Your task to perform on an android device: turn on location history Image 0: 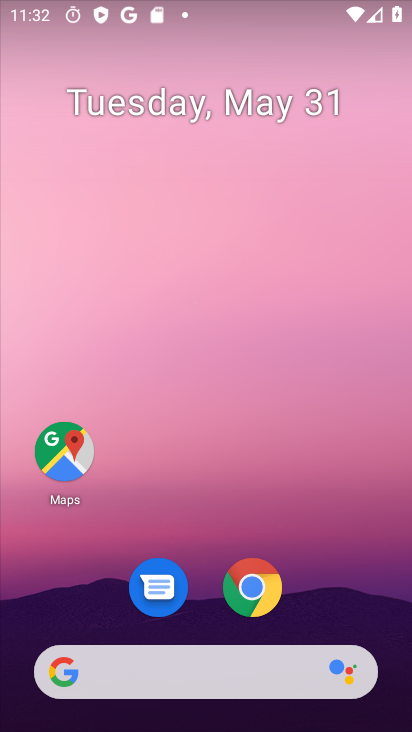
Step 0: drag from (342, 589) to (251, 116)
Your task to perform on an android device: turn on location history Image 1: 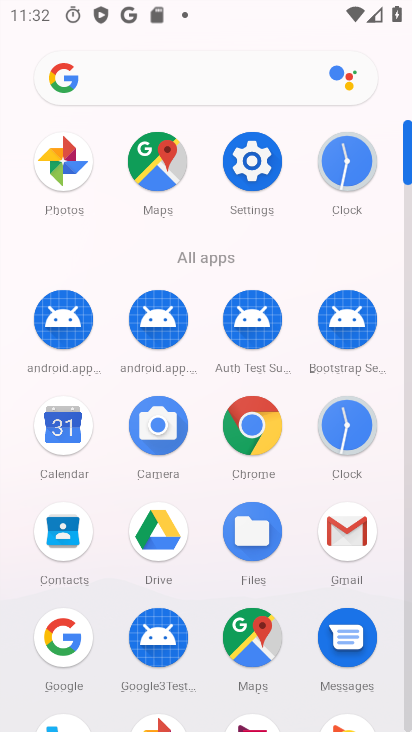
Step 1: click (253, 162)
Your task to perform on an android device: turn on location history Image 2: 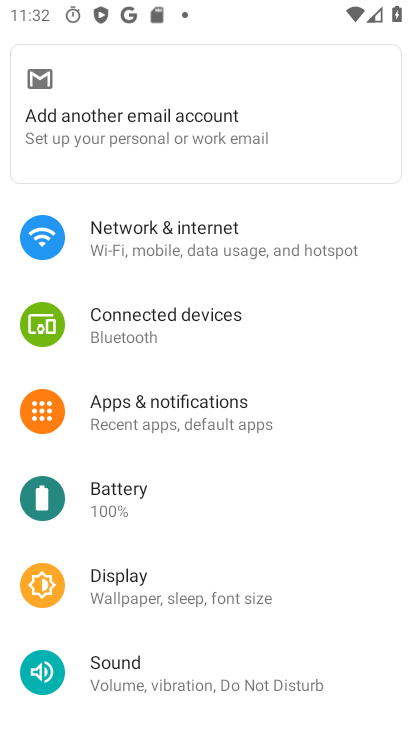
Step 2: drag from (189, 496) to (164, 363)
Your task to perform on an android device: turn on location history Image 3: 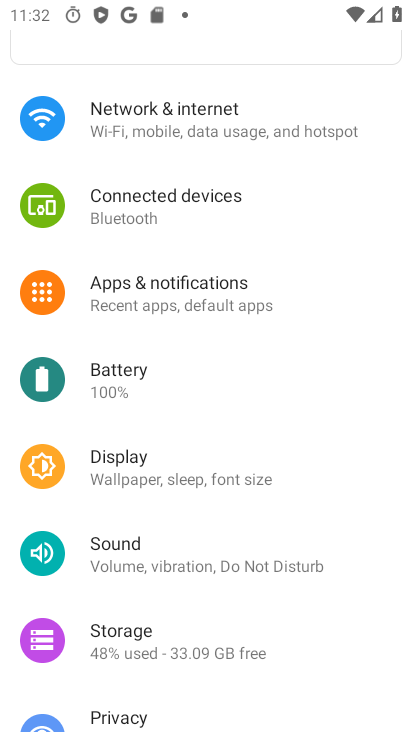
Step 3: drag from (192, 524) to (199, 385)
Your task to perform on an android device: turn on location history Image 4: 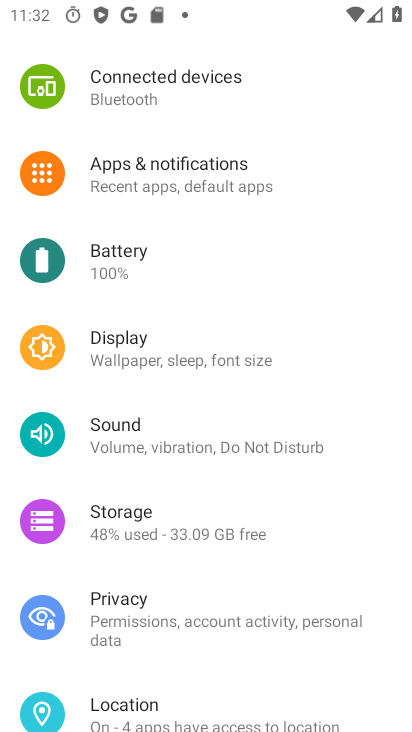
Step 4: drag from (186, 569) to (170, 369)
Your task to perform on an android device: turn on location history Image 5: 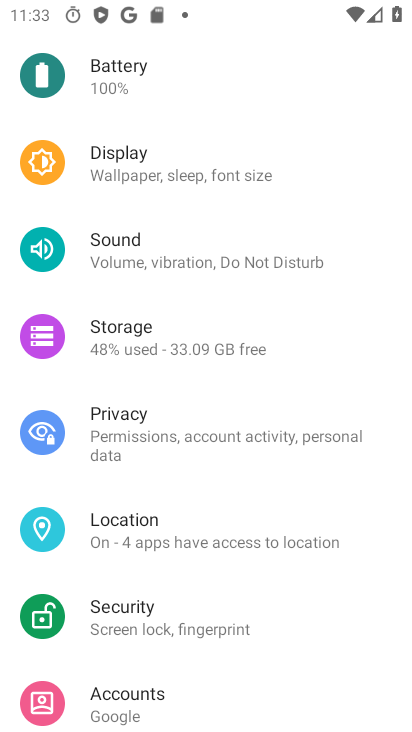
Step 5: click (176, 532)
Your task to perform on an android device: turn on location history Image 6: 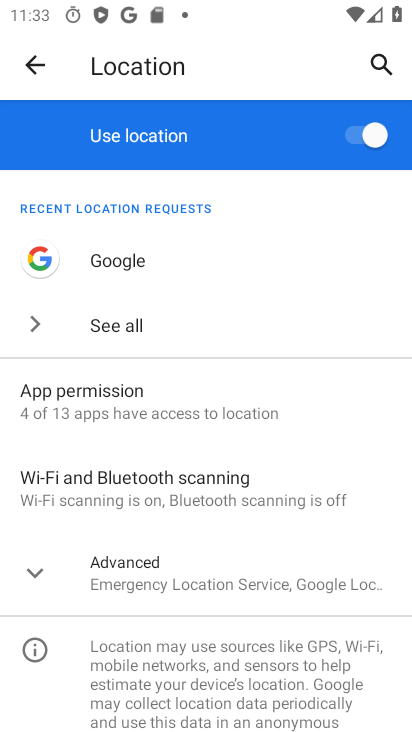
Step 6: click (229, 578)
Your task to perform on an android device: turn on location history Image 7: 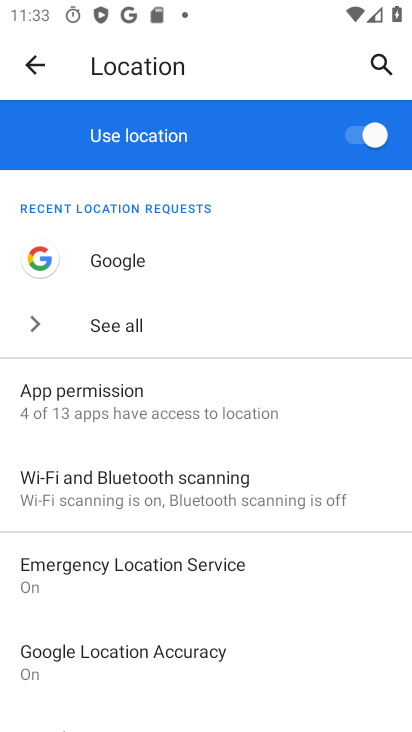
Step 7: drag from (134, 592) to (117, 463)
Your task to perform on an android device: turn on location history Image 8: 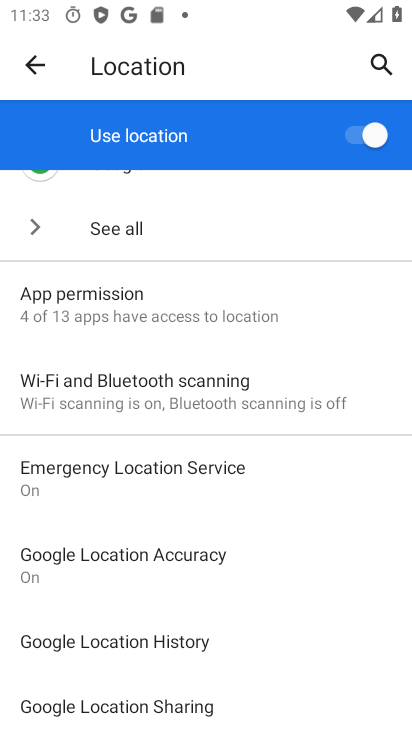
Step 8: drag from (74, 583) to (70, 418)
Your task to perform on an android device: turn on location history Image 9: 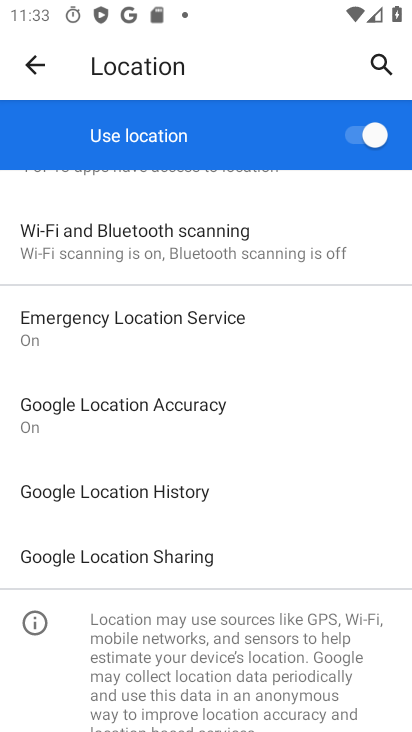
Step 9: click (135, 491)
Your task to perform on an android device: turn on location history Image 10: 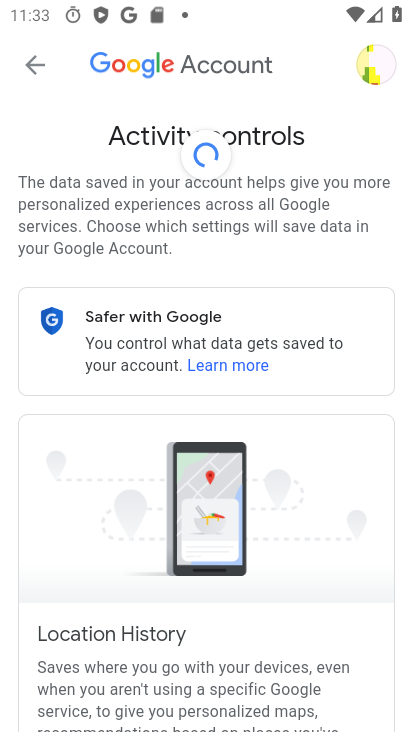
Step 10: task complete